Your task to perform on an android device: turn on improve location accuracy Image 0: 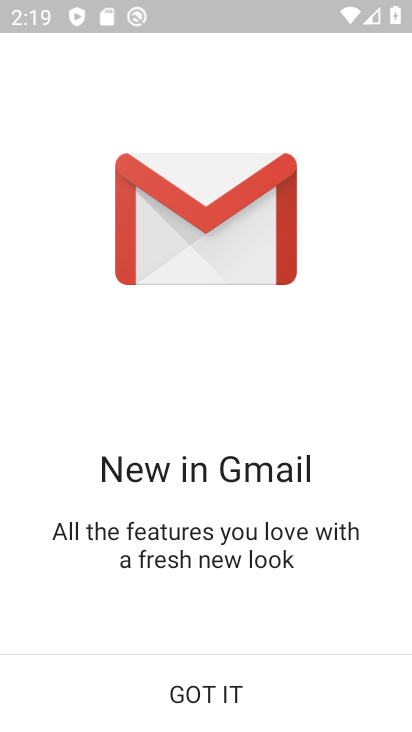
Step 0: press home button
Your task to perform on an android device: turn on improve location accuracy Image 1: 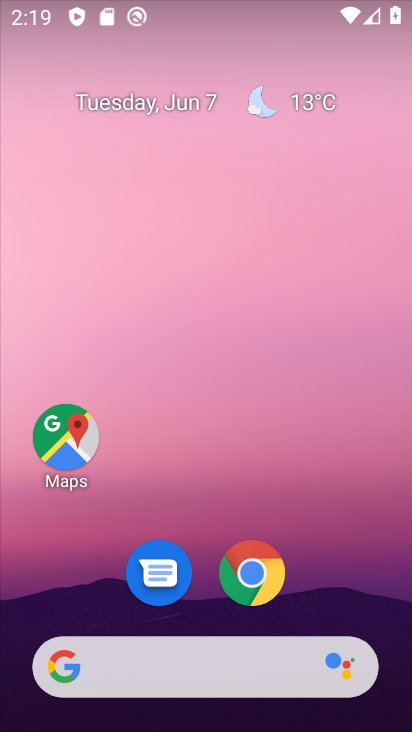
Step 1: drag from (337, 587) to (338, 7)
Your task to perform on an android device: turn on improve location accuracy Image 2: 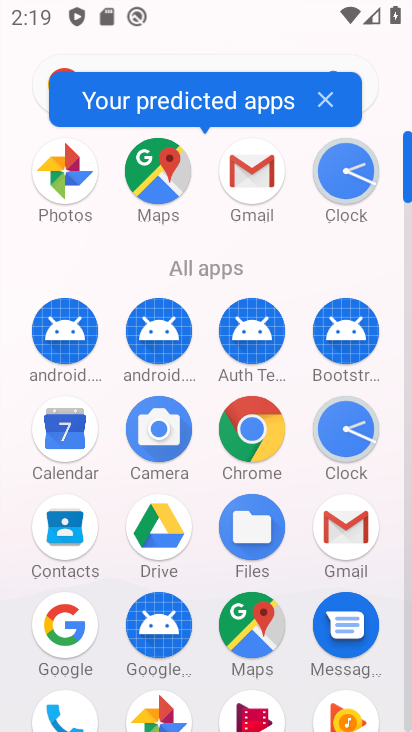
Step 2: drag from (198, 553) to (222, 20)
Your task to perform on an android device: turn on improve location accuracy Image 3: 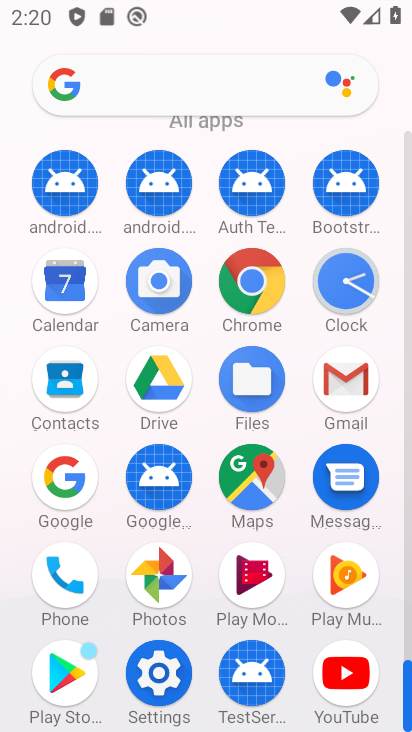
Step 3: click (157, 680)
Your task to perform on an android device: turn on improve location accuracy Image 4: 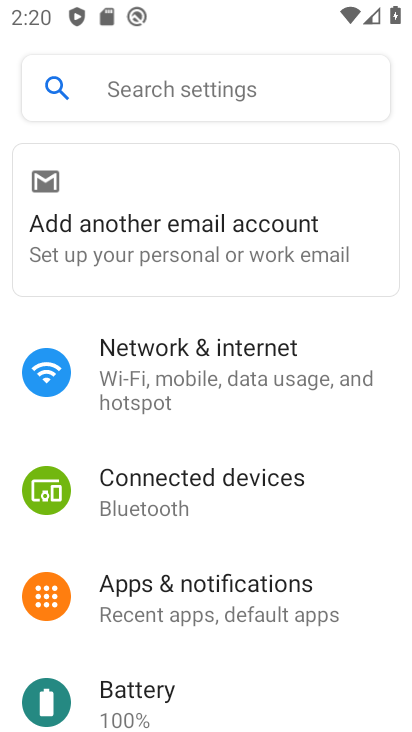
Step 4: drag from (263, 443) to (230, 79)
Your task to perform on an android device: turn on improve location accuracy Image 5: 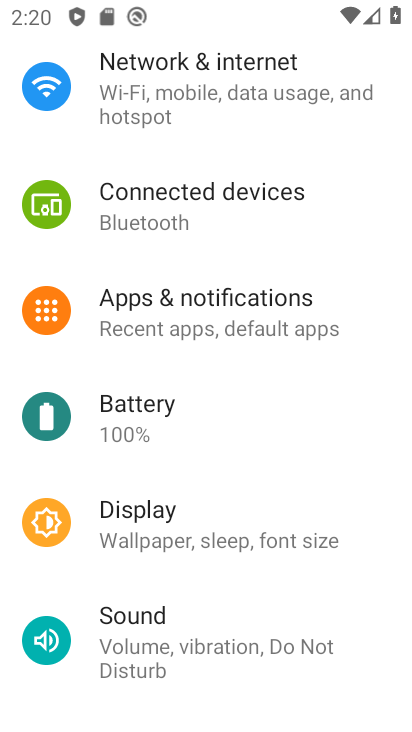
Step 5: drag from (118, 661) to (167, 186)
Your task to perform on an android device: turn on improve location accuracy Image 6: 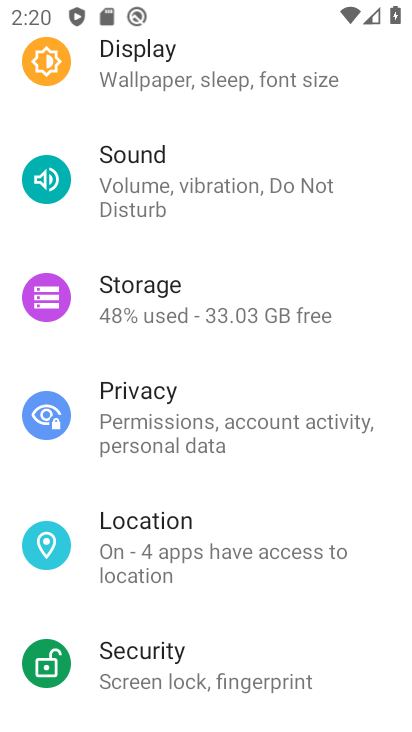
Step 6: click (157, 574)
Your task to perform on an android device: turn on improve location accuracy Image 7: 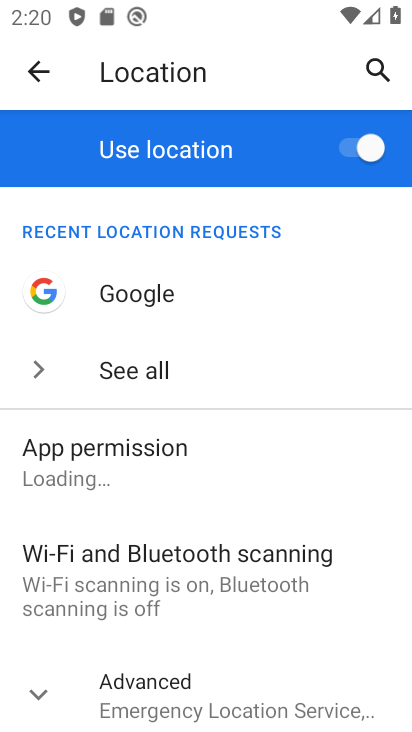
Step 7: click (184, 701)
Your task to perform on an android device: turn on improve location accuracy Image 8: 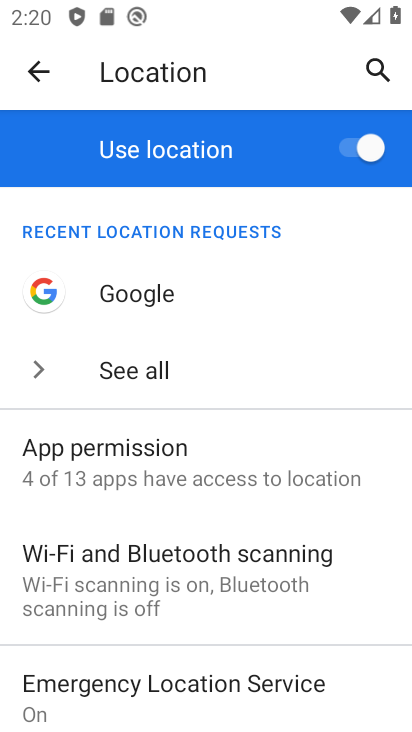
Step 8: drag from (183, 700) to (161, 211)
Your task to perform on an android device: turn on improve location accuracy Image 9: 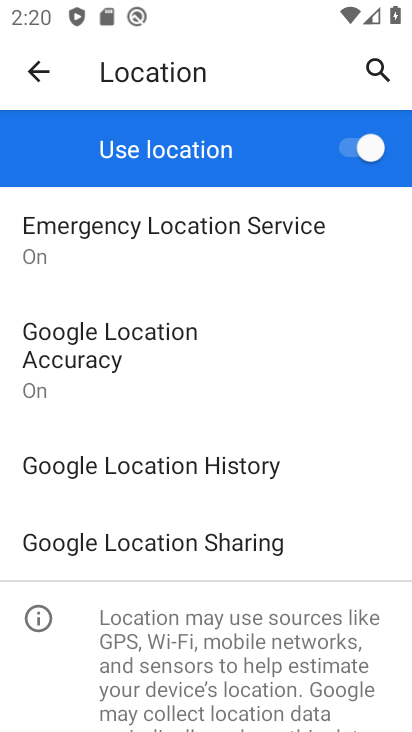
Step 9: click (118, 372)
Your task to perform on an android device: turn on improve location accuracy Image 10: 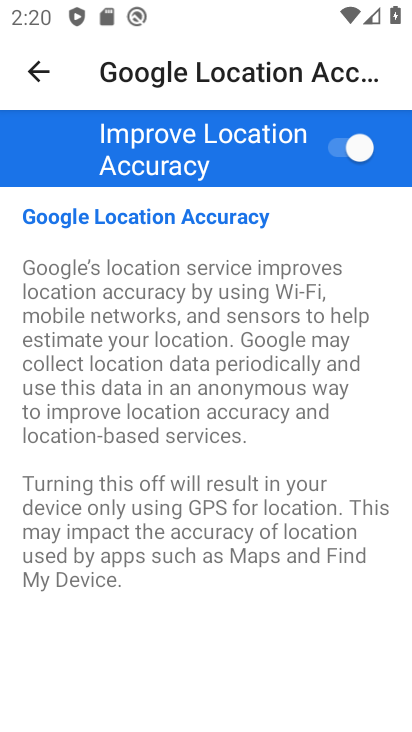
Step 10: task complete